Your task to perform on an android device: Search for "asus rog" on target.com, select the first entry, and add it to the cart. Image 0: 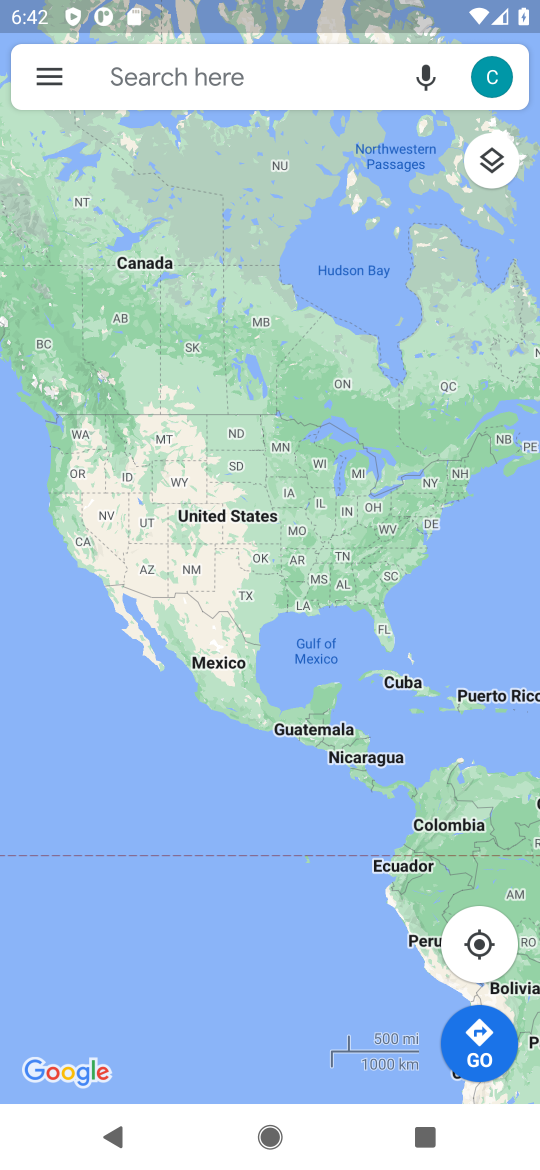
Step 0: press home button
Your task to perform on an android device: Search for "asus rog" on target.com, select the first entry, and add it to the cart. Image 1: 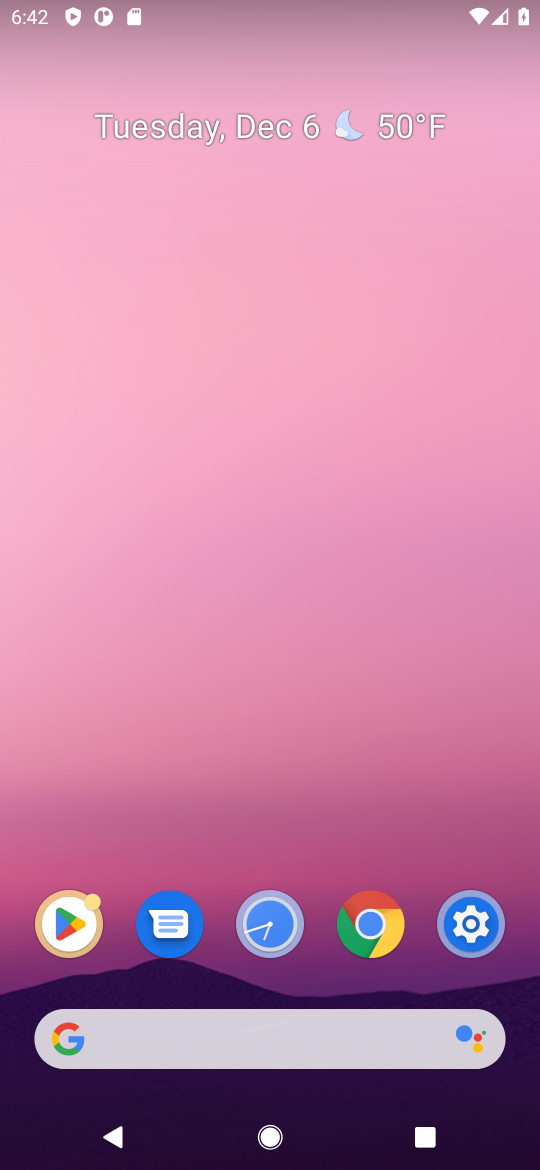
Step 1: click (288, 1052)
Your task to perform on an android device: Search for "asus rog" on target.com, select the first entry, and add it to the cart. Image 2: 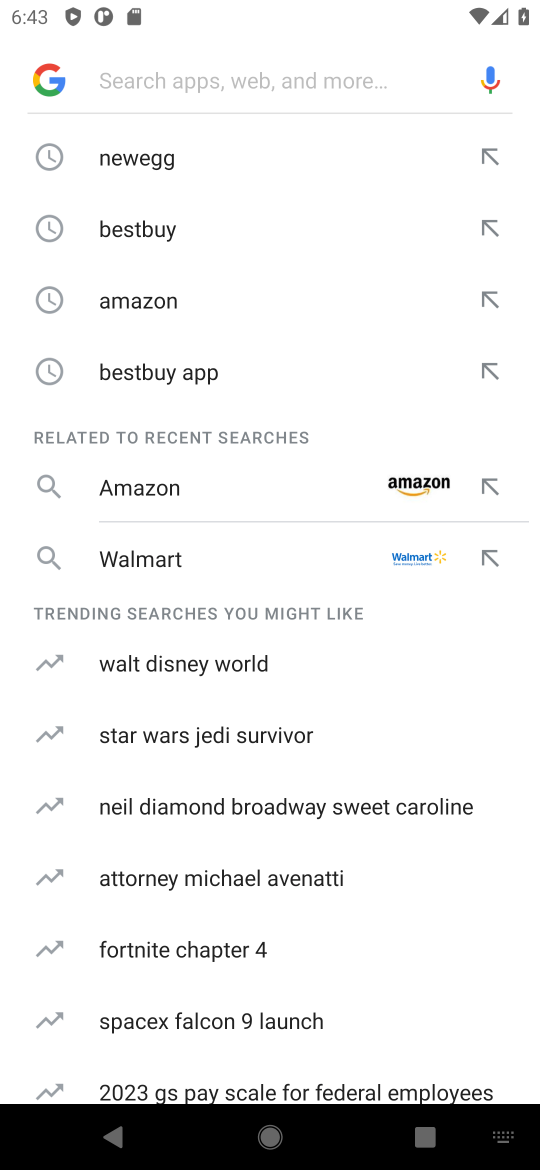
Step 2: type "target]"
Your task to perform on an android device: Search for "asus rog" on target.com, select the first entry, and add it to the cart. Image 3: 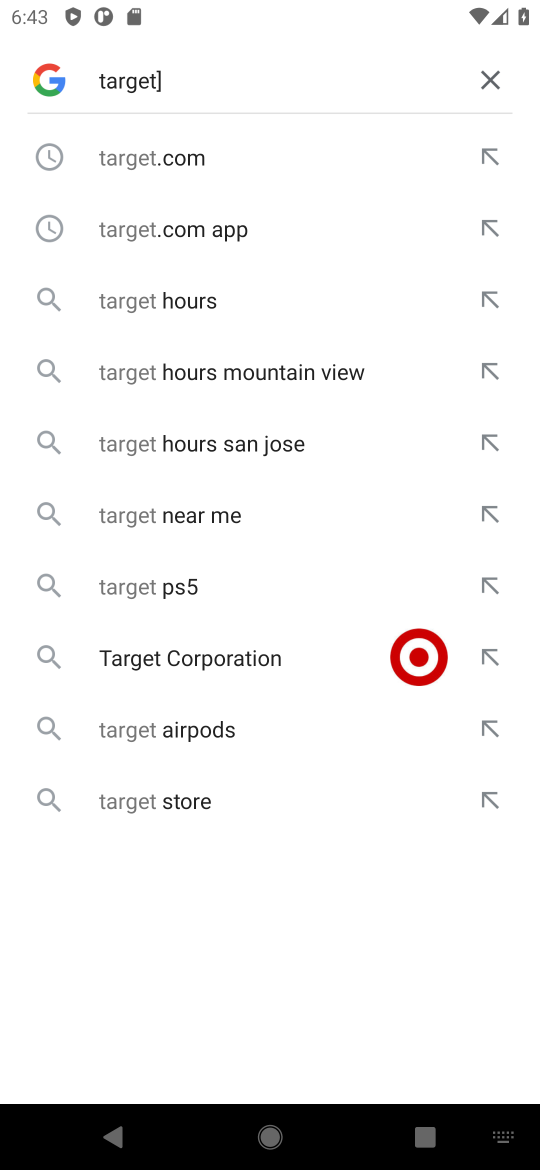
Step 3: type "]"
Your task to perform on an android device: Search for "asus rog" on target.com, select the first entry, and add it to the cart. Image 4: 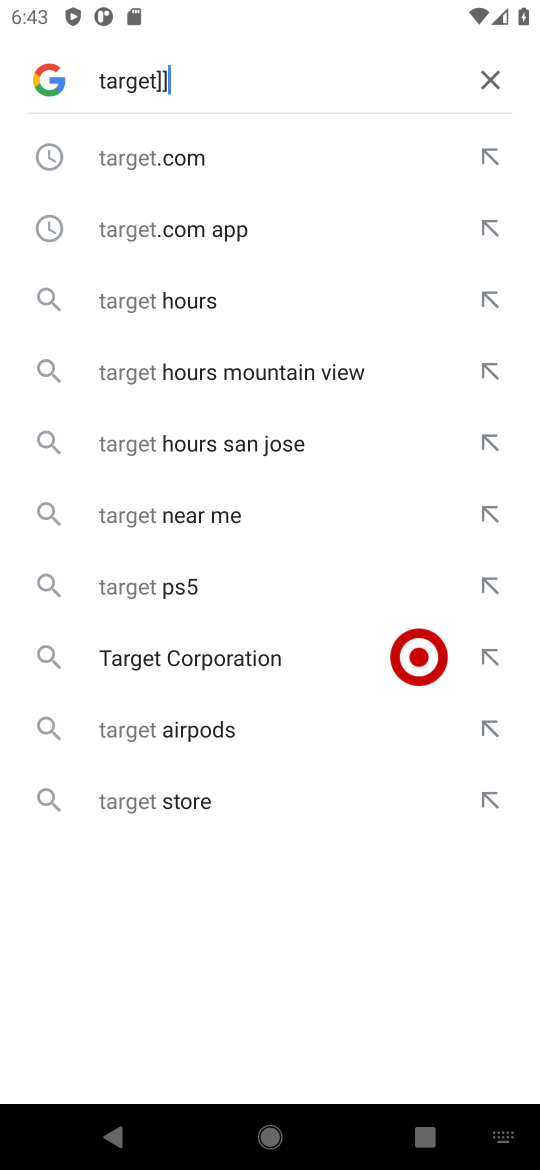
Step 4: click (194, 187)
Your task to perform on an android device: Search for "asus rog" on target.com, select the first entry, and add it to the cart. Image 5: 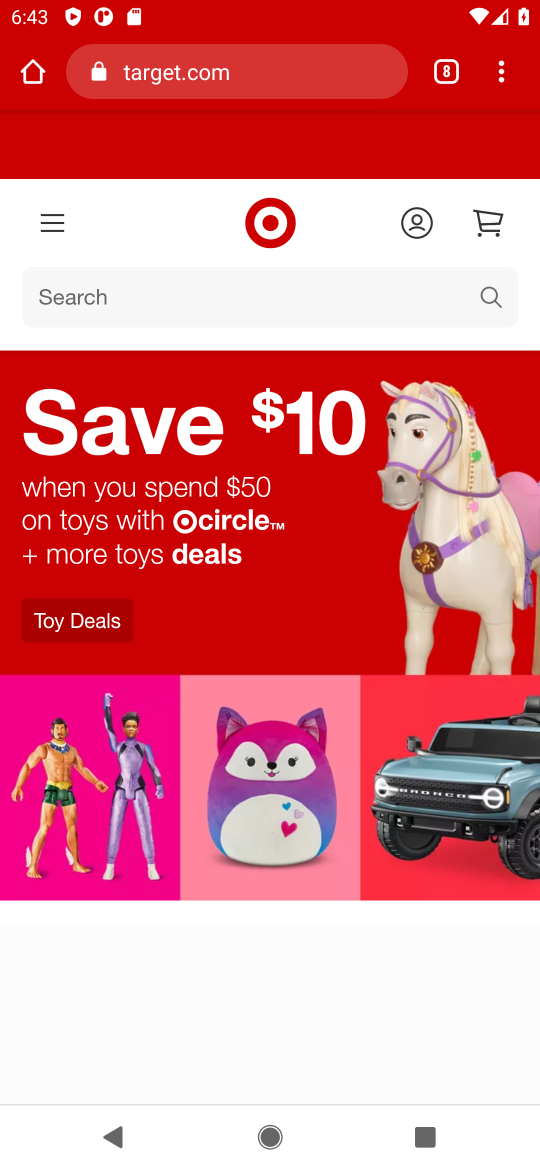
Step 5: click (146, 297)
Your task to perform on an android device: Search for "asus rog" on target.com, select the first entry, and add it to the cart. Image 6: 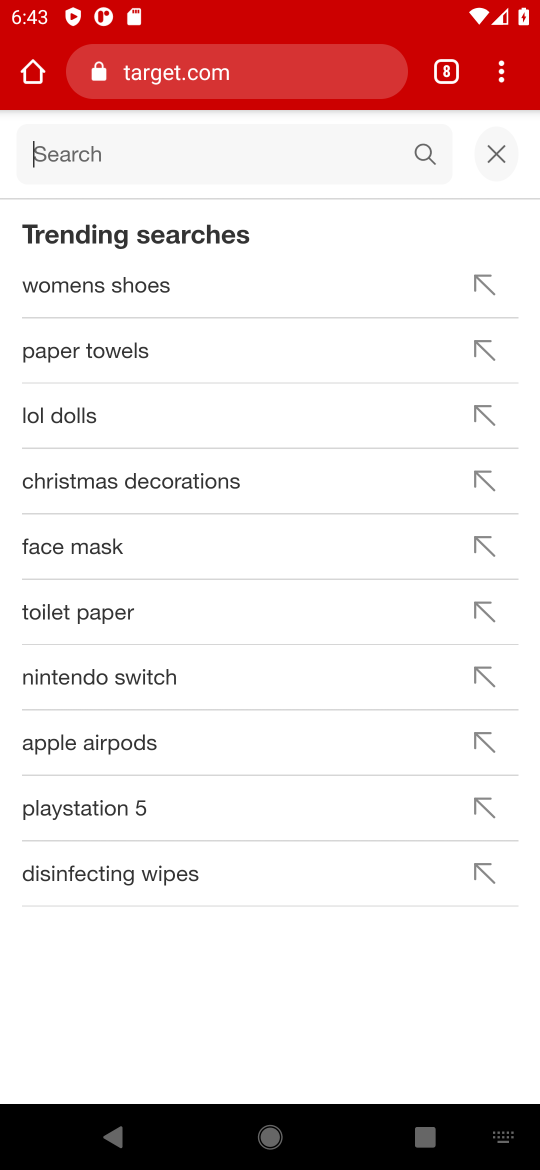
Step 6: type "asus rog"
Your task to perform on an android device: Search for "asus rog" on target.com, select the first entry, and add it to the cart. Image 7: 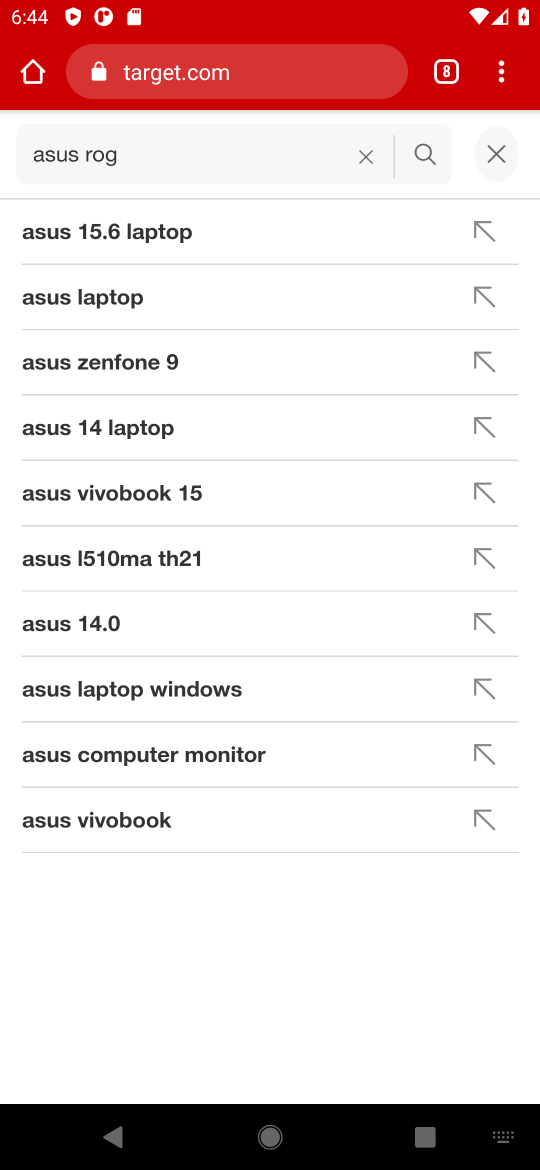
Step 7: click (402, 154)
Your task to perform on an android device: Search for "asus rog" on target.com, select the first entry, and add it to the cart. Image 8: 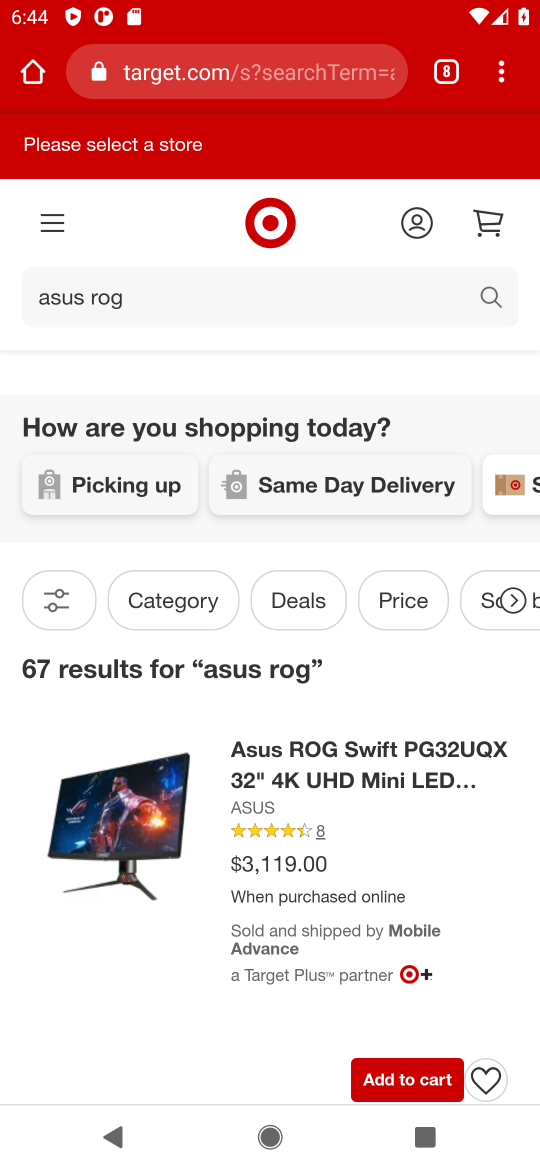
Step 8: click (387, 1087)
Your task to perform on an android device: Search for "asus rog" on target.com, select the first entry, and add it to the cart. Image 9: 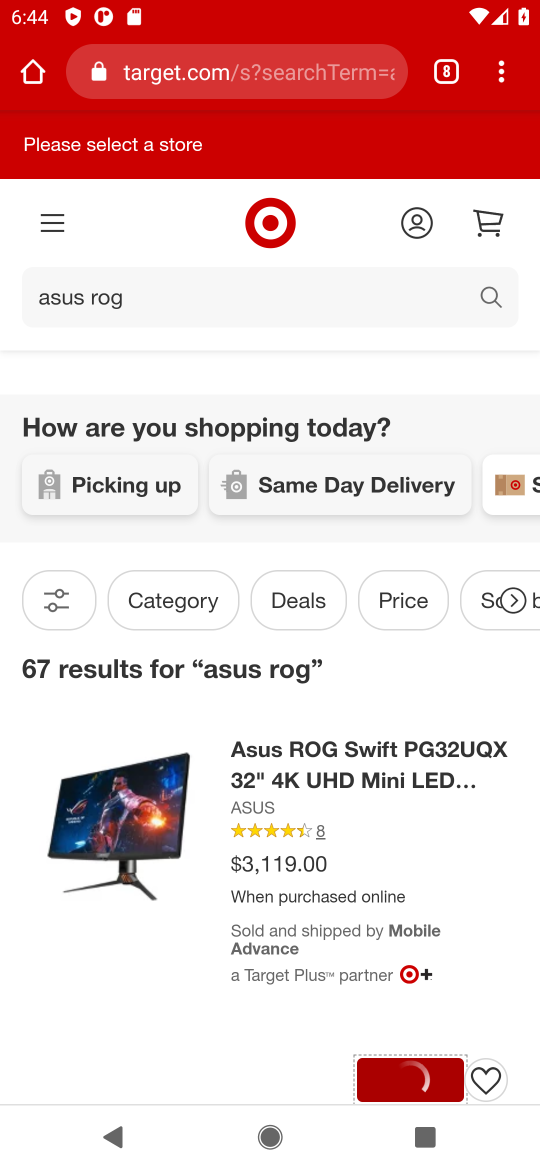
Step 9: task complete